Your task to perform on an android device: Open Google Chrome and click the shortcut for Amazon.com Image 0: 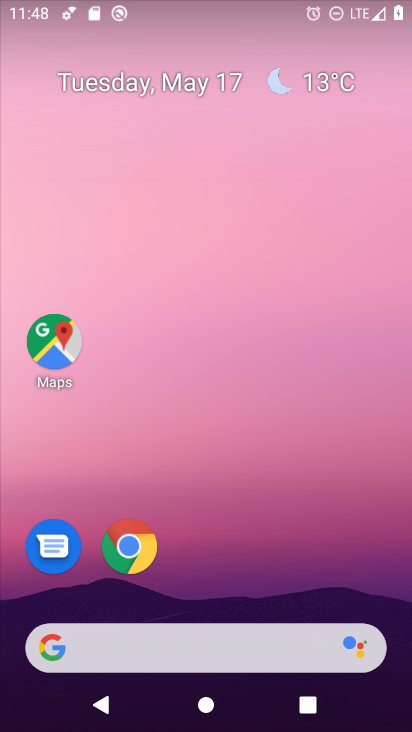
Step 0: click (126, 551)
Your task to perform on an android device: Open Google Chrome and click the shortcut for Amazon.com Image 1: 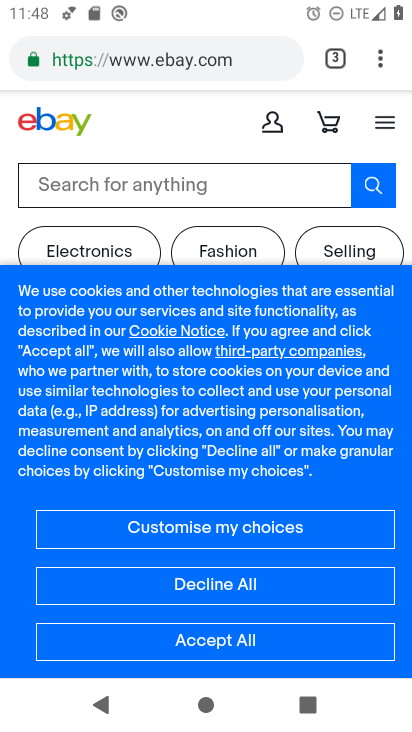
Step 1: click (383, 59)
Your task to perform on an android device: Open Google Chrome and click the shortcut for Amazon.com Image 2: 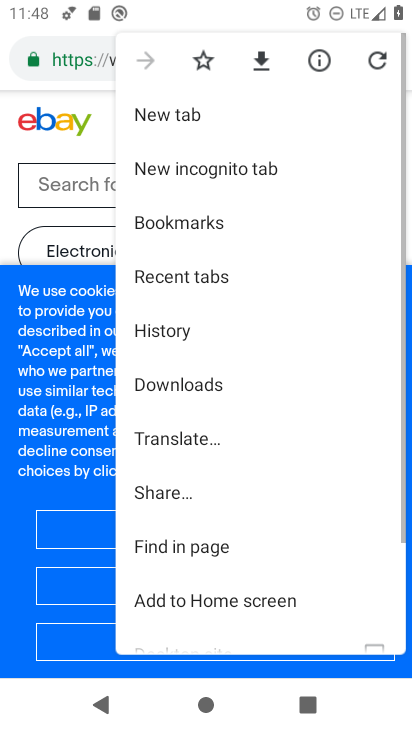
Step 2: click (166, 117)
Your task to perform on an android device: Open Google Chrome and click the shortcut for Amazon.com Image 3: 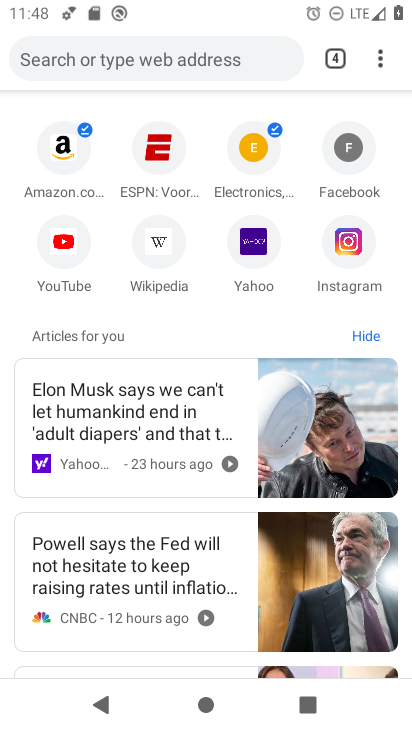
Step 3: click (52, 156)
Your task to perform on an android device: Open Google Chrome and click the shortcut for Amazon.com Image 4: 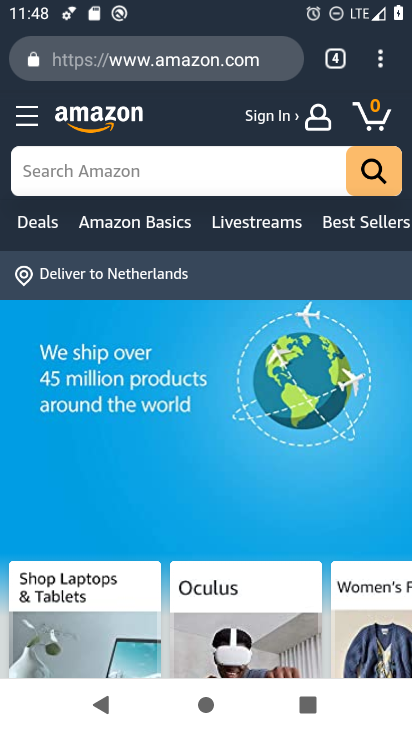
Step 4: task complete